Your task to perform on an android device: What is the news today? Image 0: 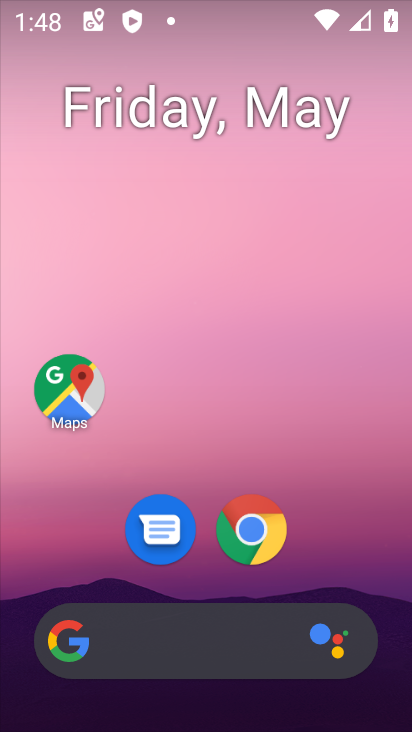
Step 0: drag from (343, 550) to (210, 116)
Your task to perform on an android device: What is the news today? Image 1: 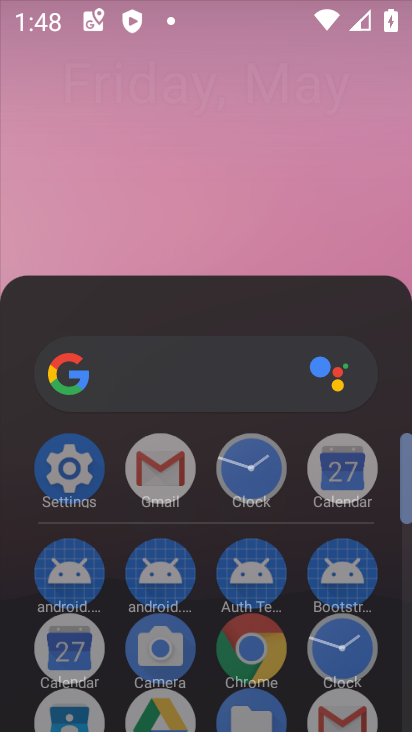
Step 1: click (210, 116)
Your task to perform on an android device: What is the news today? Image 2: 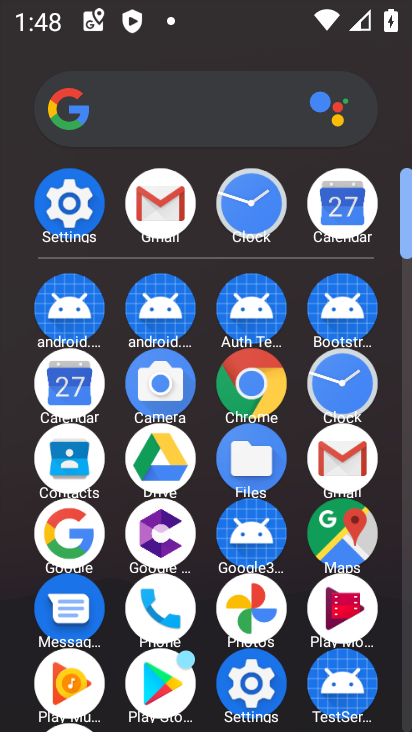
Step 2: click (143, 125)
Your task to perform on an android device: What is the news today? Image 3: 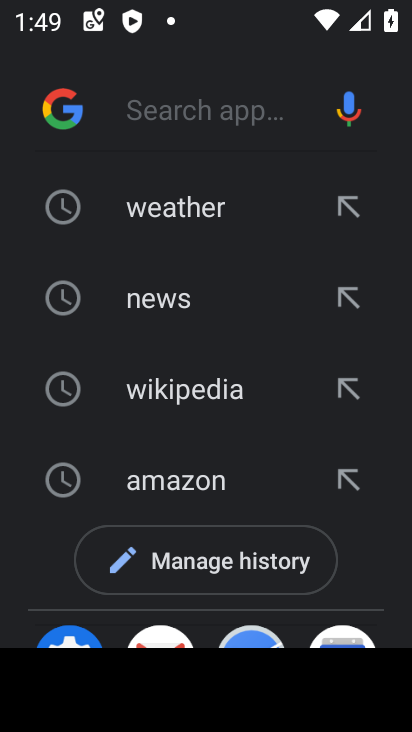
Step 3: click (245, 332)
Your task to perform on an android device: What is the news today? Image 4: 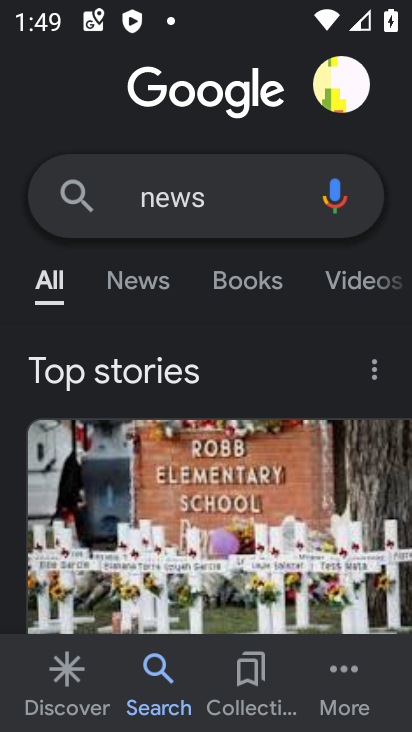
Step 4: task complete